Your task to perform on an android device: delete a single message in the gmail app Image 0: 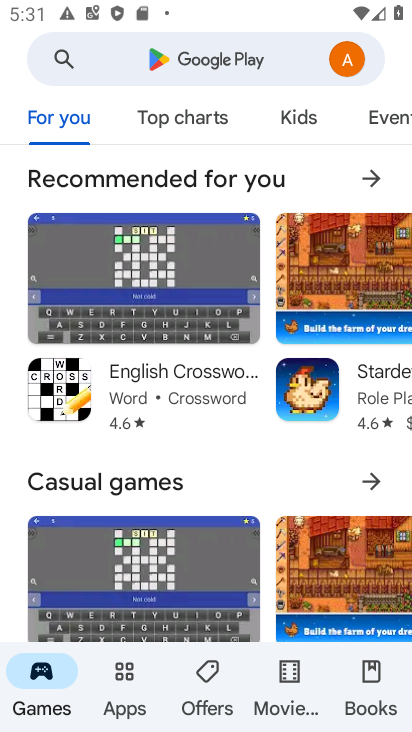
Step 0: press back button
Your task to perform on an android device: delete a single message in the gmail app Image 1: 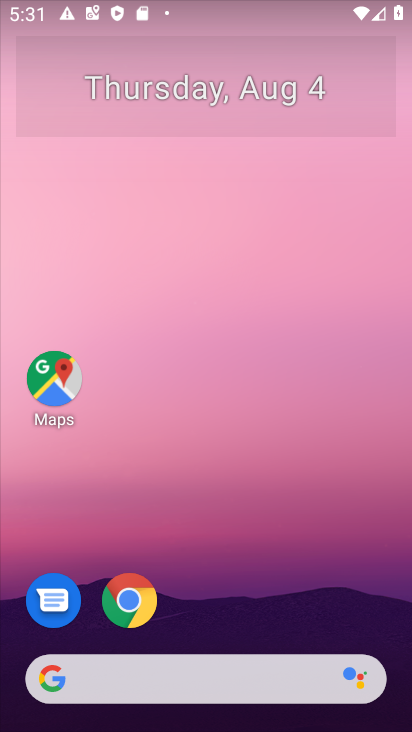
Step 1: drag from (208, 635) to (267, 0)
Your task to perform on an android device: delete a single message in the gmail app Image 2: 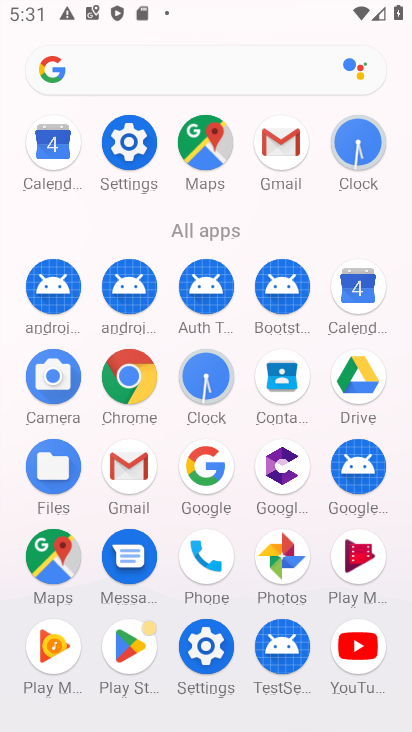
Step 2: click (291, 142)
Your task to perform on an android device: delete a single message in the gmail app Image 3: 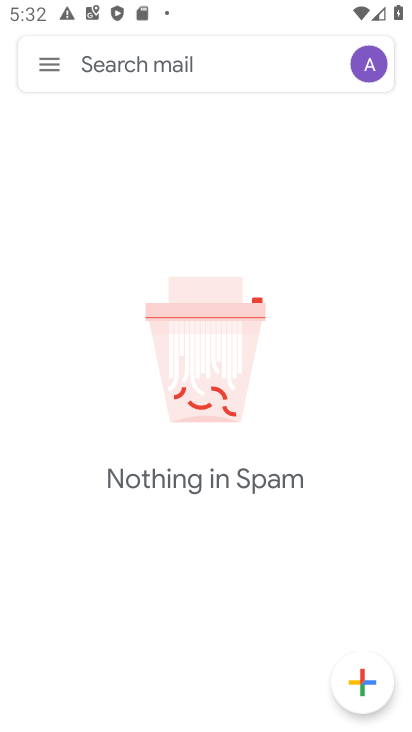
Step 3: click (33, 60)
Your task to perform on an android device: delete a single message in the gmail app Image 4: 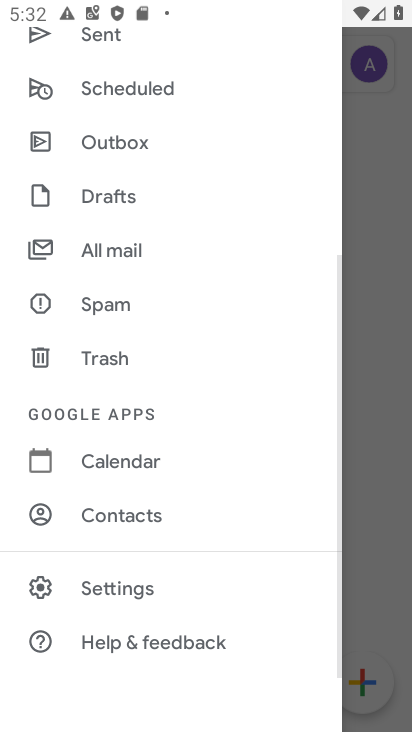
Step 4: click (106, 260)
Your task to perform on an android device: delete a single message in the gmail app Image 5: 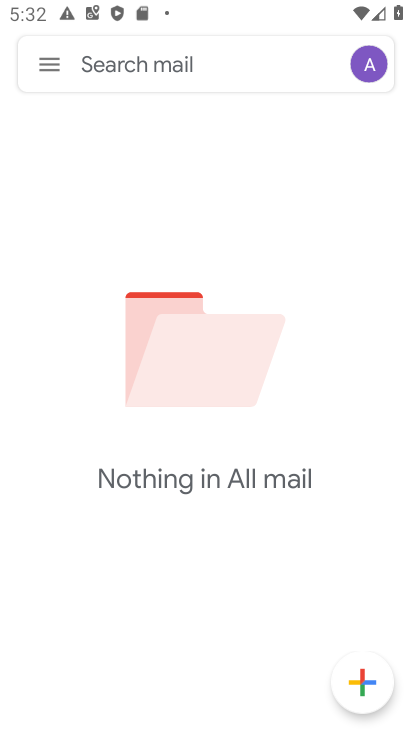
Step 5: task complete